Your task to perform on an android device: Add razer kraken to the cart on target, then select checkout. Image 0: 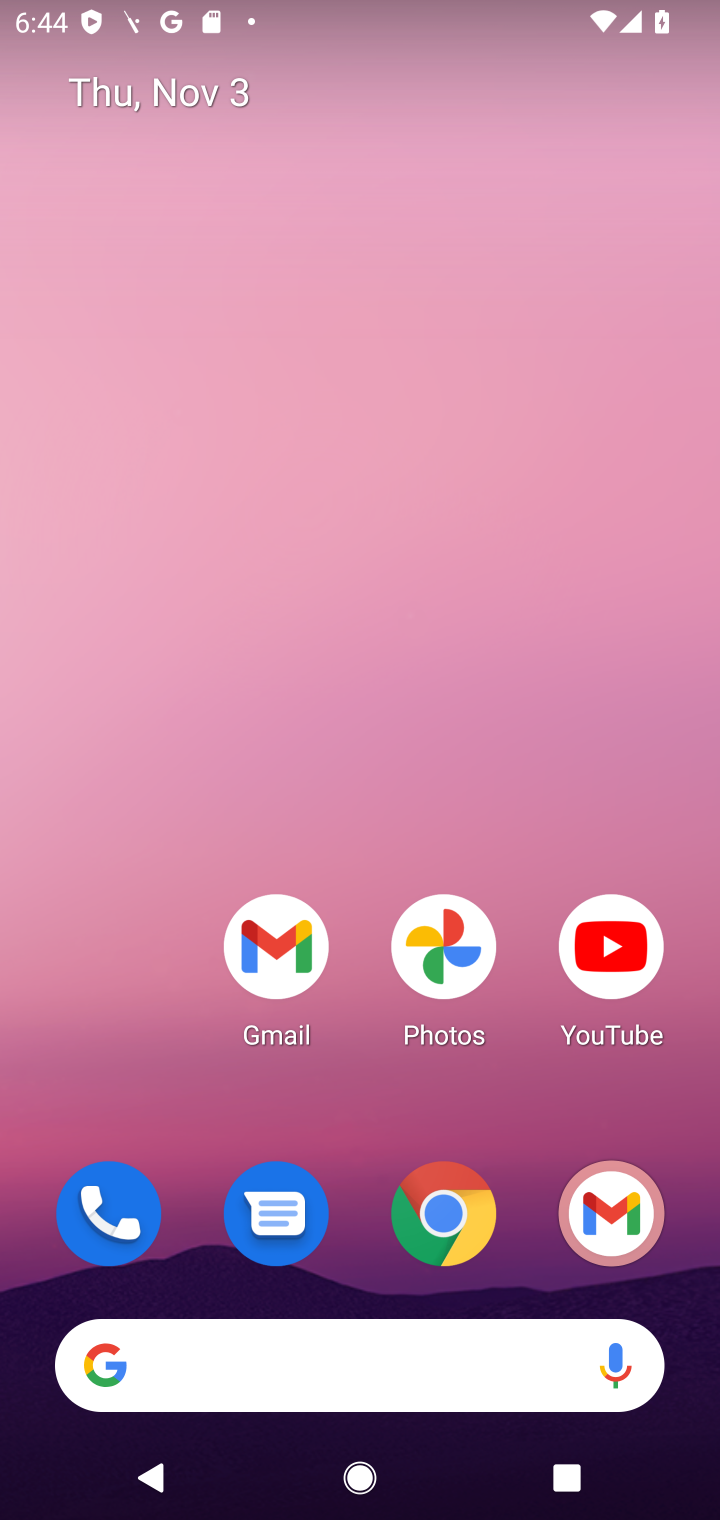
Step 0: click (451, 1217)
Your task to perform on an android device: Add razer kraken to the cart on target, then select checkout. Image 1: 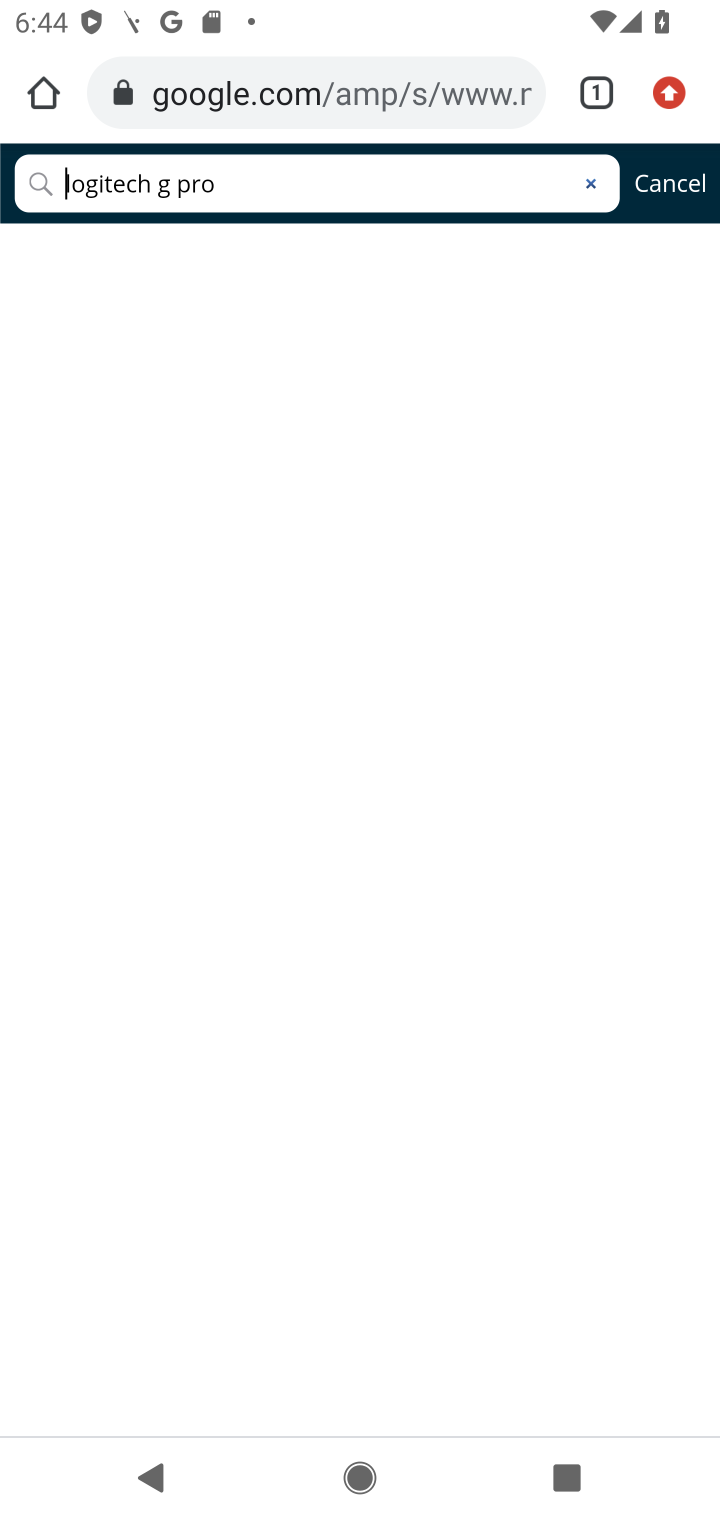
Step 1: click (275, 112)
Your task to perform on an android device: Add razer kraken to the cart on target, then select checkout. Image 2: 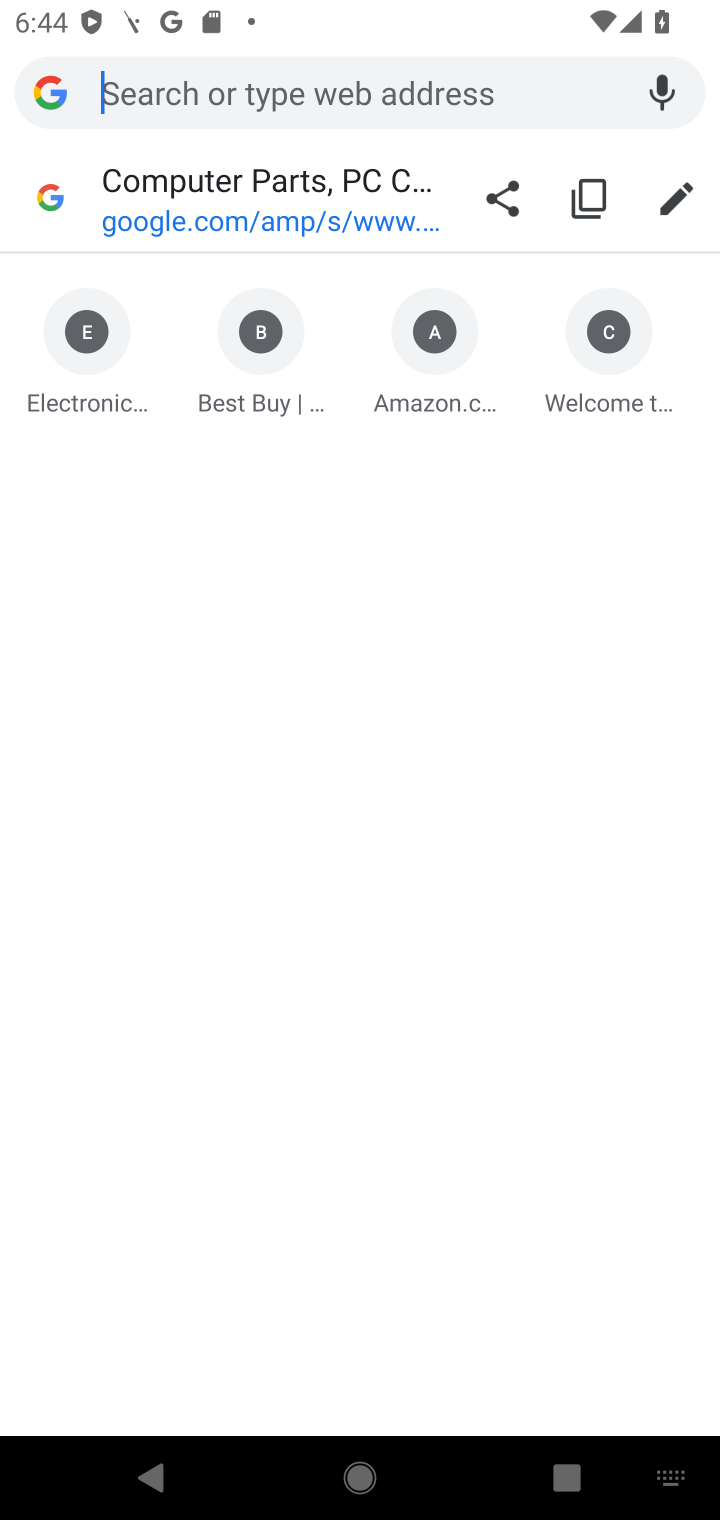
Step 2: type "target.com"
Your task to perform on an android device: Add razer kraken to the cart on target, then select checkout. Image 3: 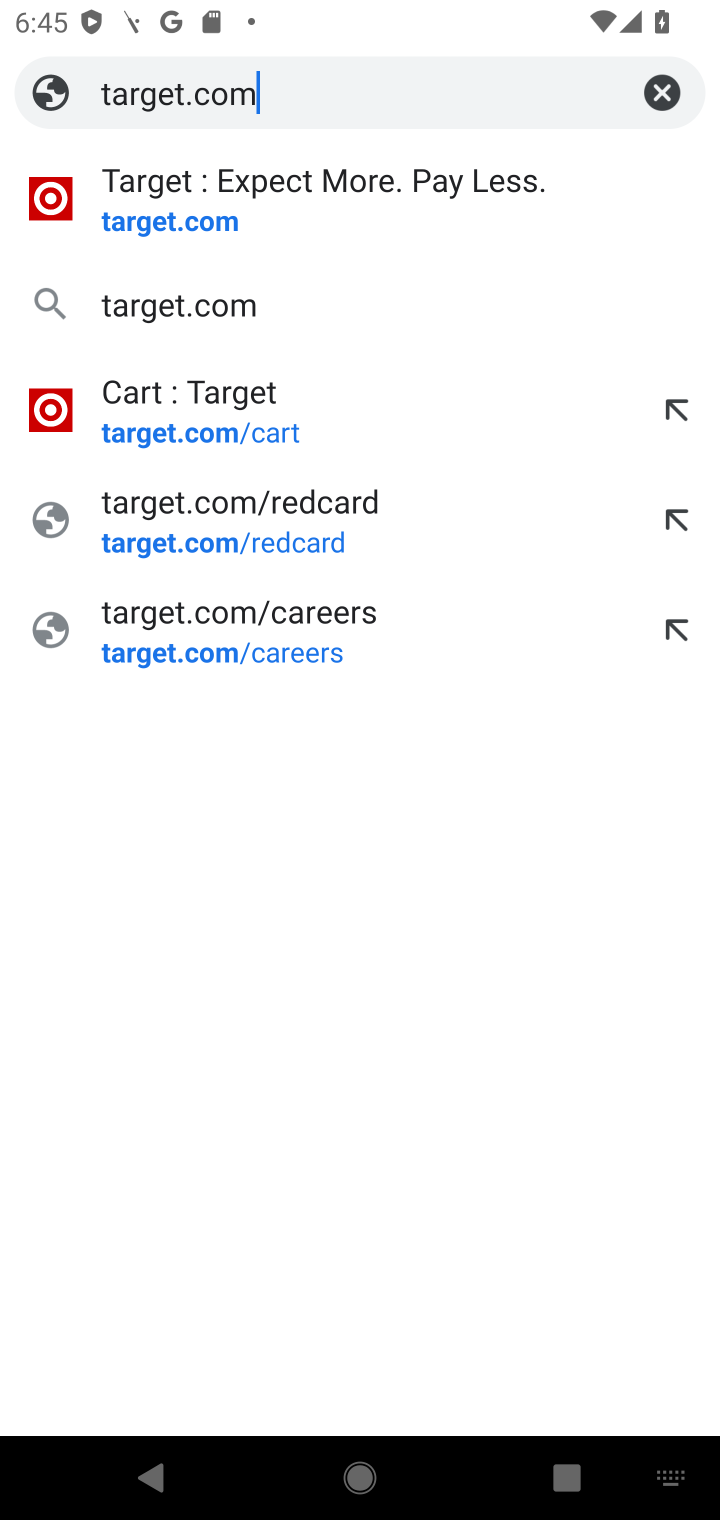
Step 3: click (151, 231)
Your task to perform on an android device: Add razer kraken to the cart on target, then select checkout. Image 4: 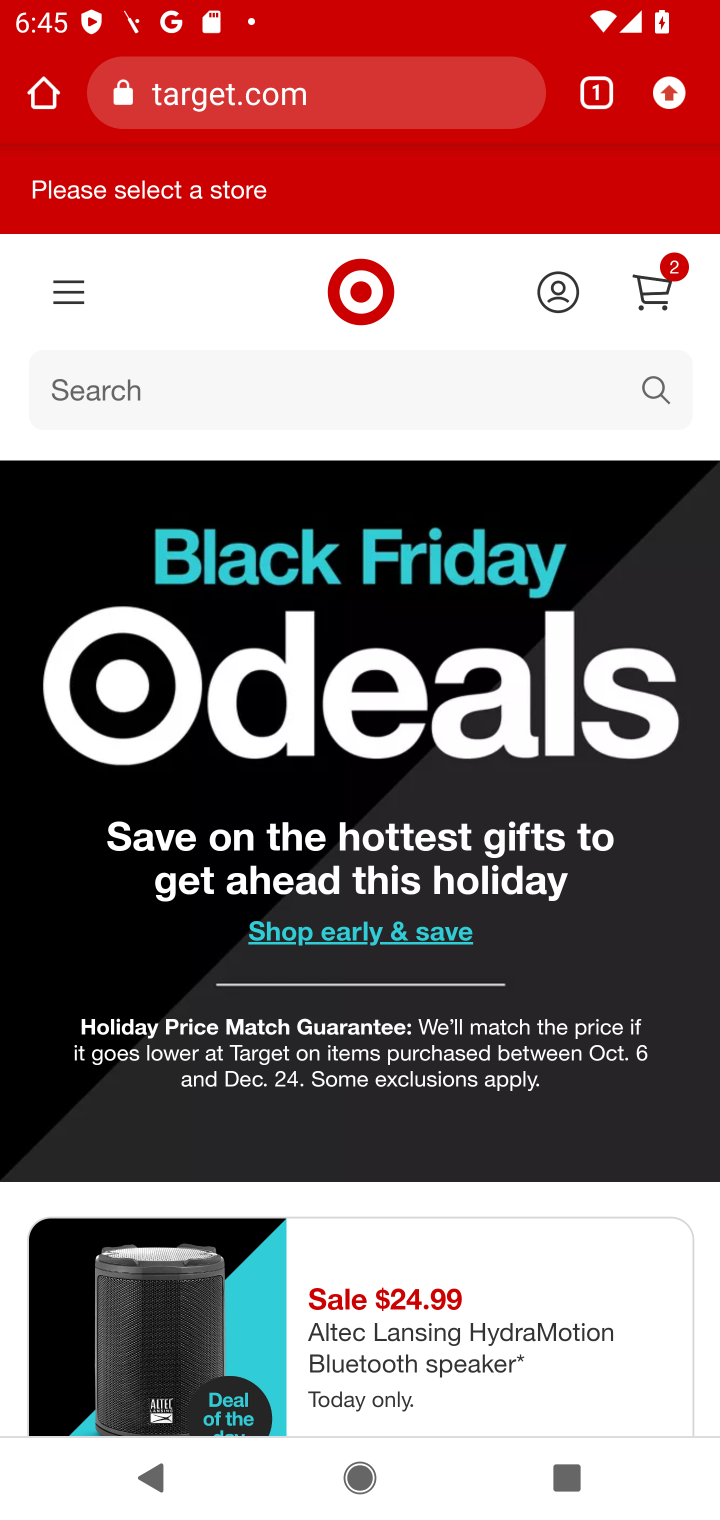
Step 4: click (654, 398)
Your task to perform on an android device: Add razer kraken to the cart on target, then select checkout. Image 5: 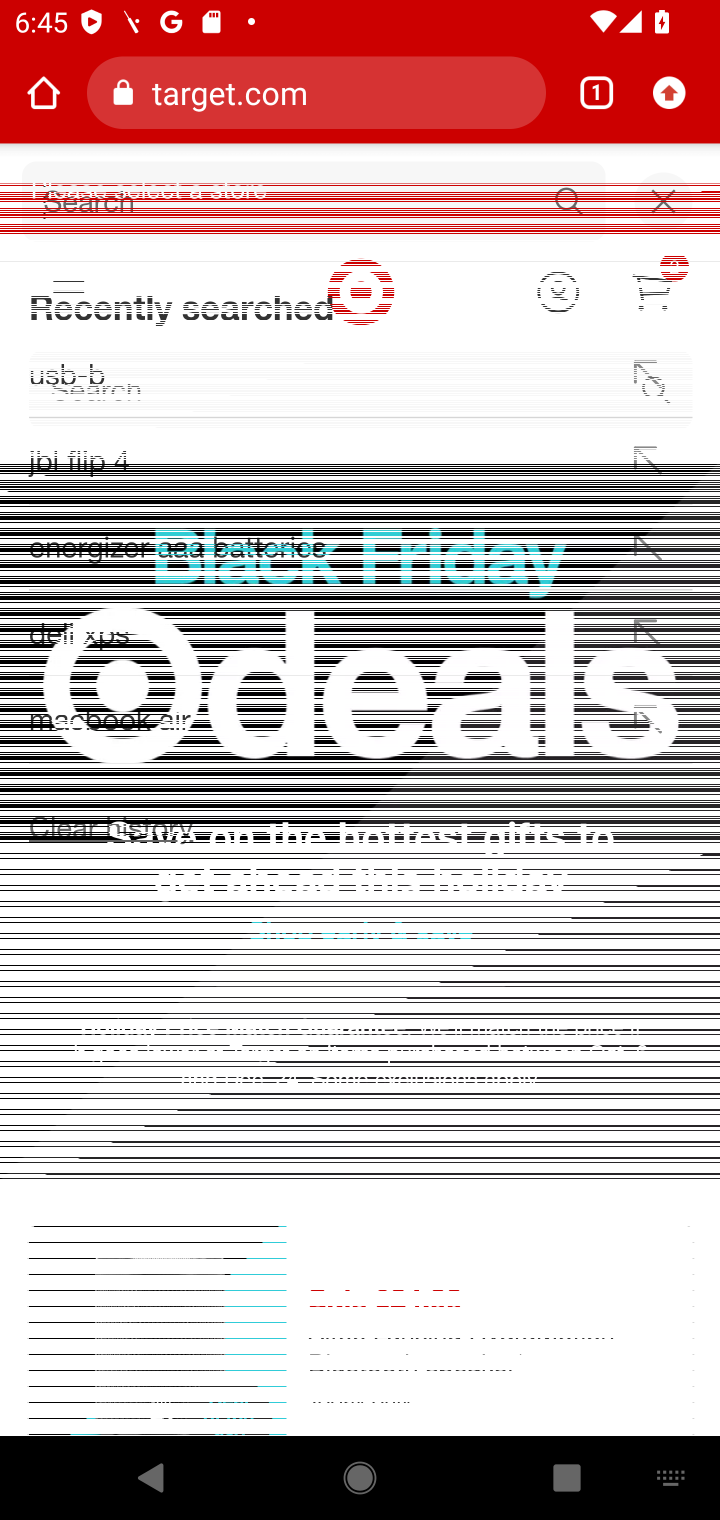
Step 5: type "razer kraken"
Your task to perform on an android device: Add razer kraken to the cart on target, then select checkout. Image 6: 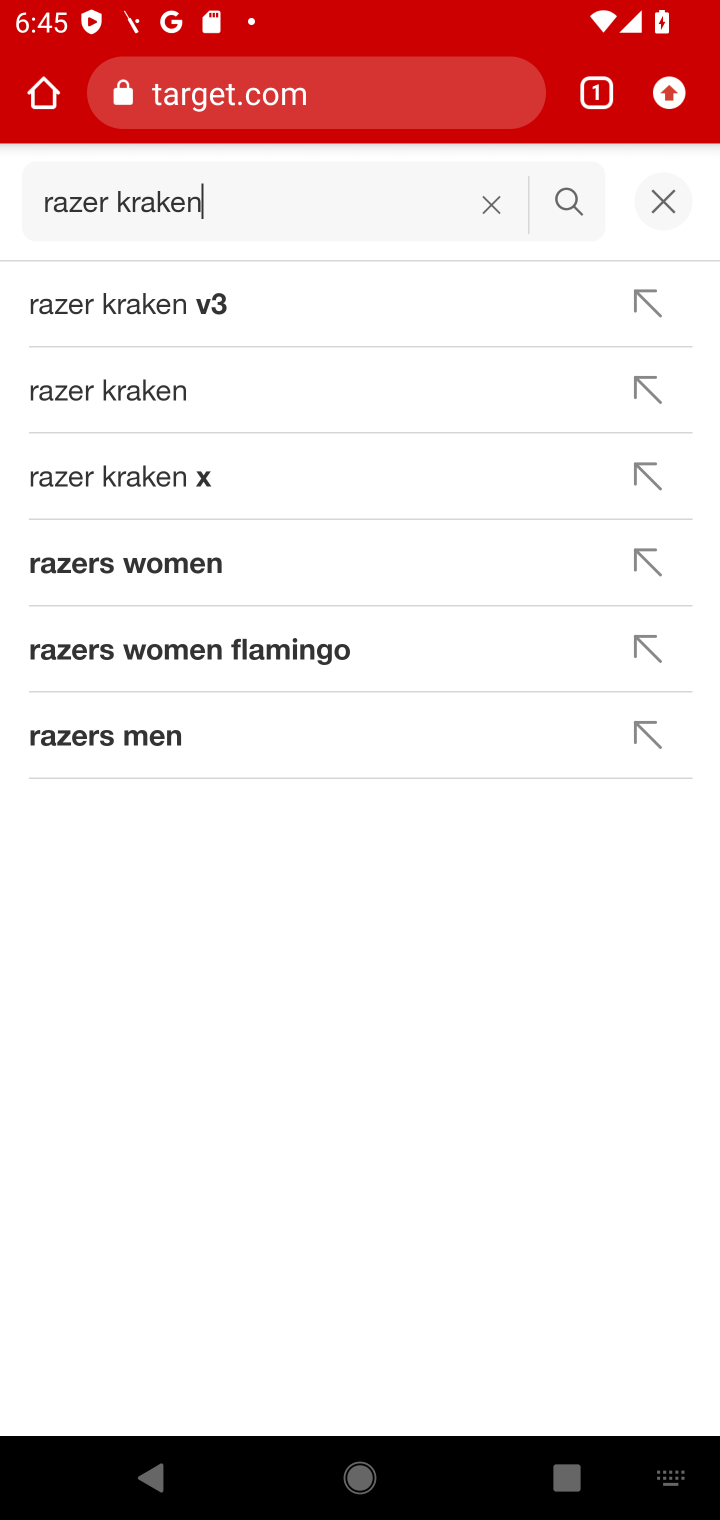
Step 6: click (125, 405)
Your task to perform on an android device: Add razer kraken to the cart on target, then select checkout. Image 7: 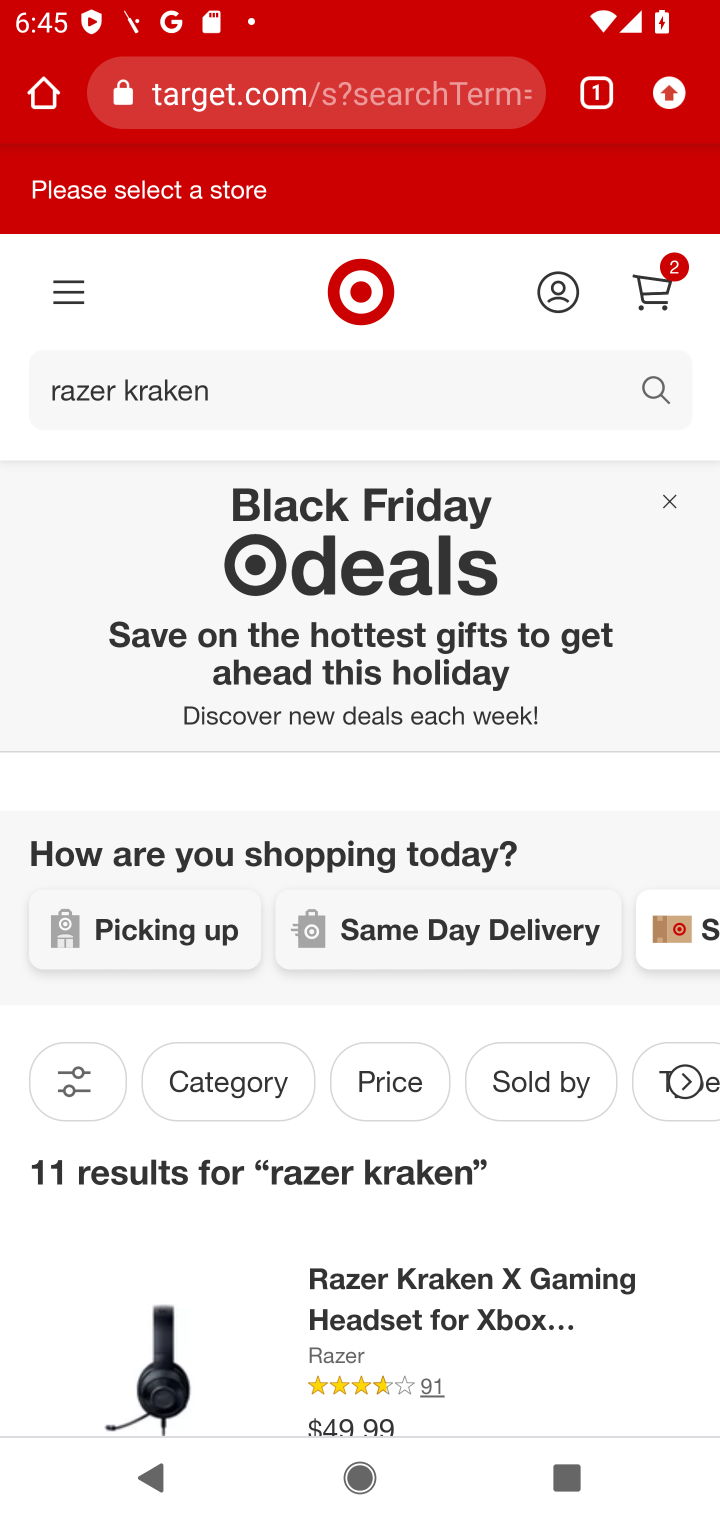
Step 7: drag from (331, 1031) to (349, 648)
Your task to perform on an android device: Add razer kraken to the cart on target, then select checkout. Image 8: 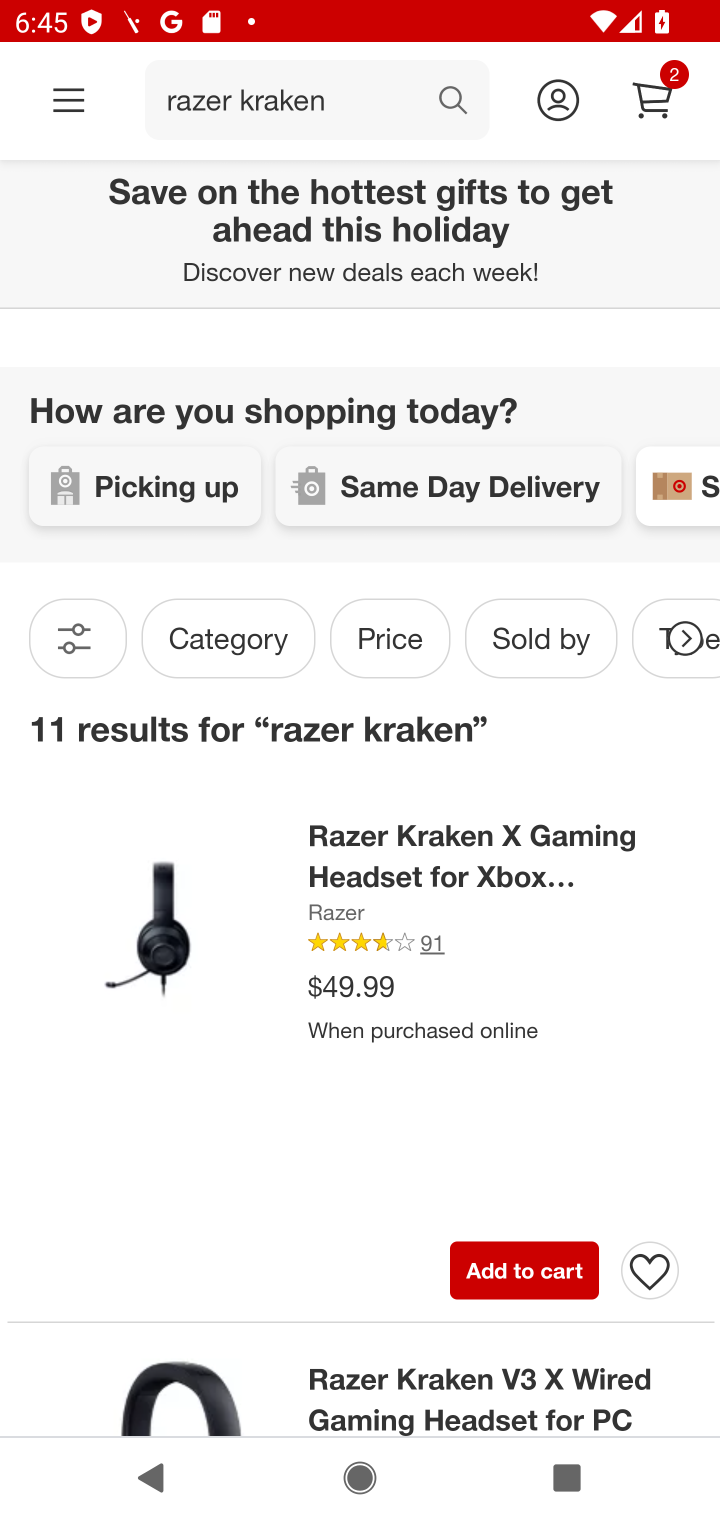
Step 8: click (345, 917)
Your task to perform on an android device: Add razer kraken to the cart on target, then select checkout. Image 9: 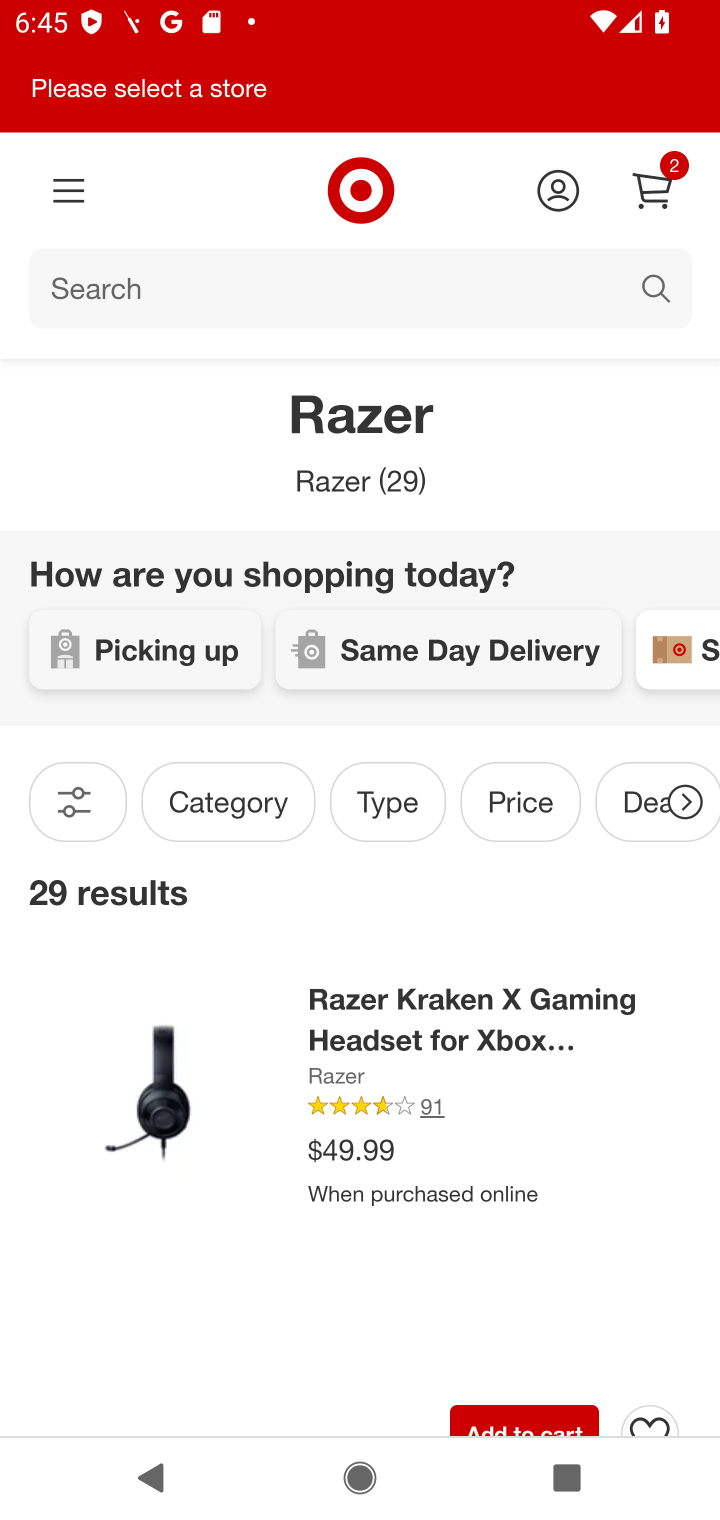
Step 9: drag from (248, 1139) to (295, 732)
Your task to perform on an android device: Add razer kraken to the cart on target, then select checkout. Image 10: 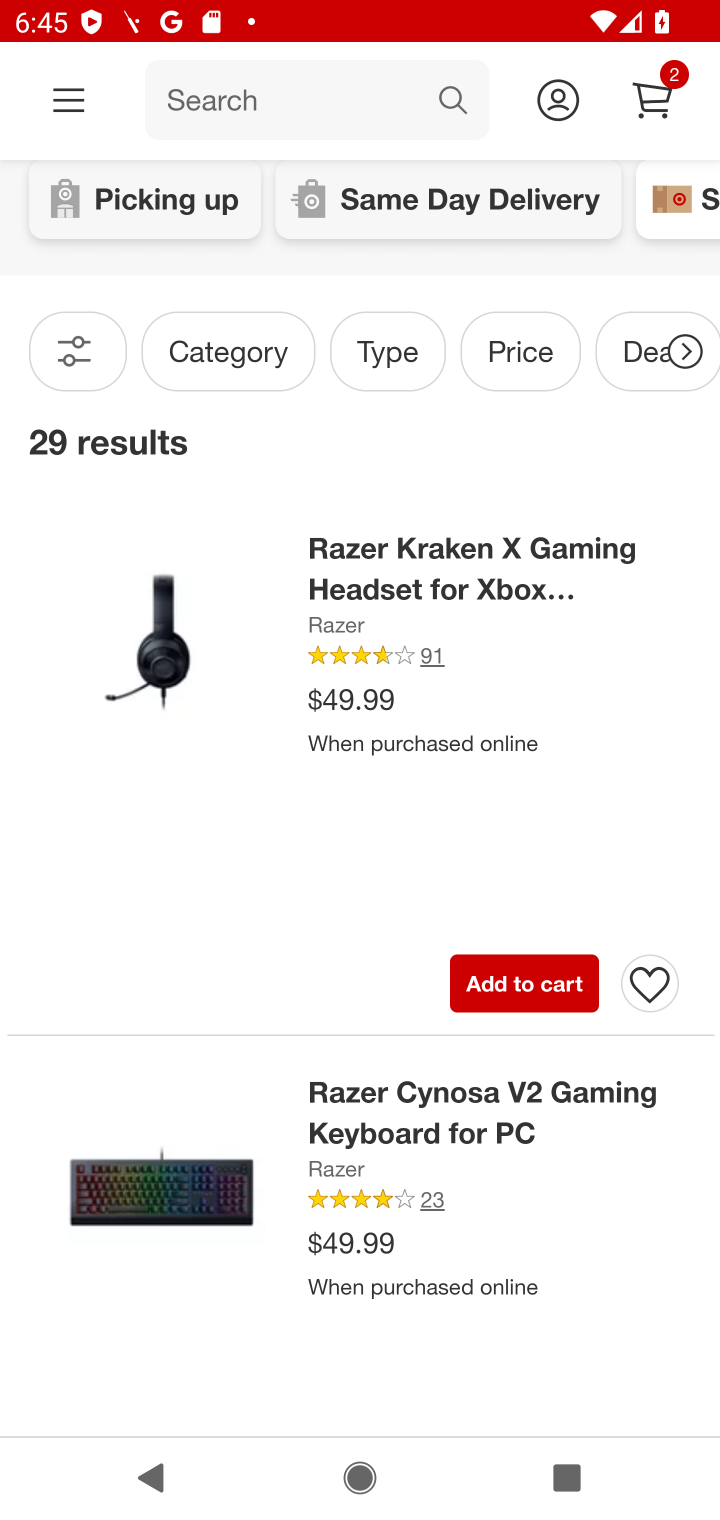
Step 10: click (490, 982)
Your task to perform on an android device: Add razer kraken to the cart on target, then select checkout. Image 11: 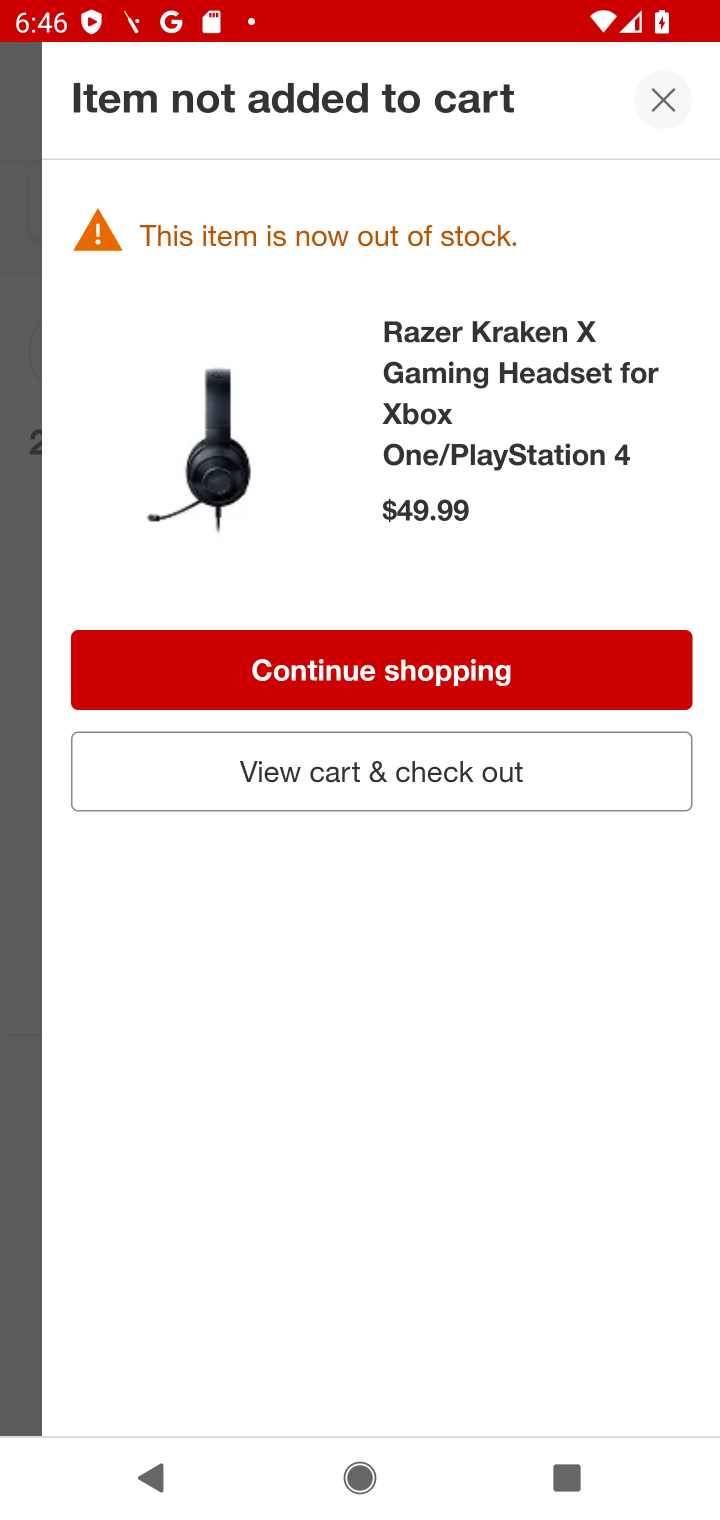
Step 11: click (365, 775)
Your task to perform on an android device: Add razer kraken to the cart on target, then select checkout. Image 12: 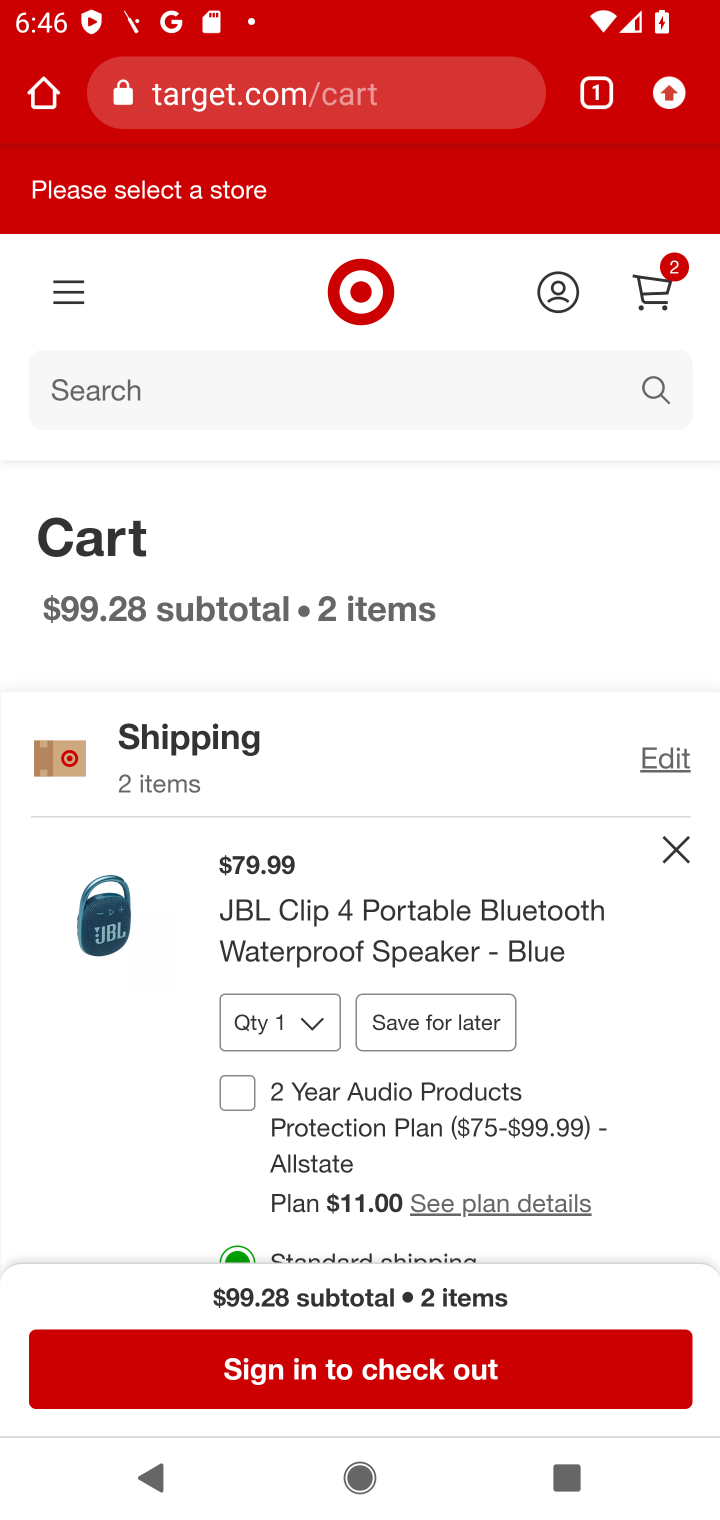
Step 12: task complete